Your task to perform on an android device: set the stopwatch Image 0: 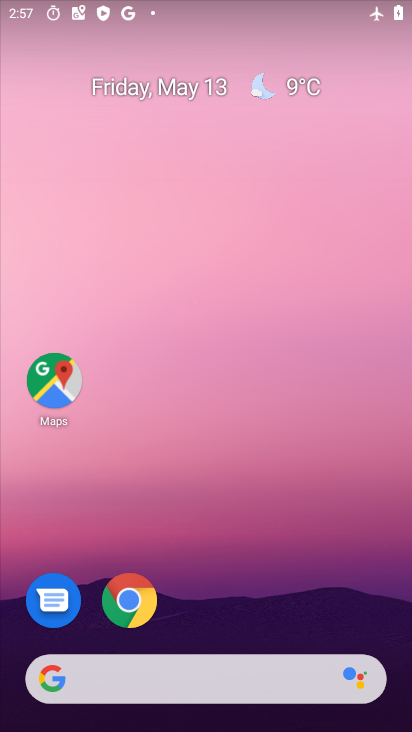
Step 0: drag from (191, 634) to (208, 196)
Your task to perform on an android device: set the stopwatch Image 1: 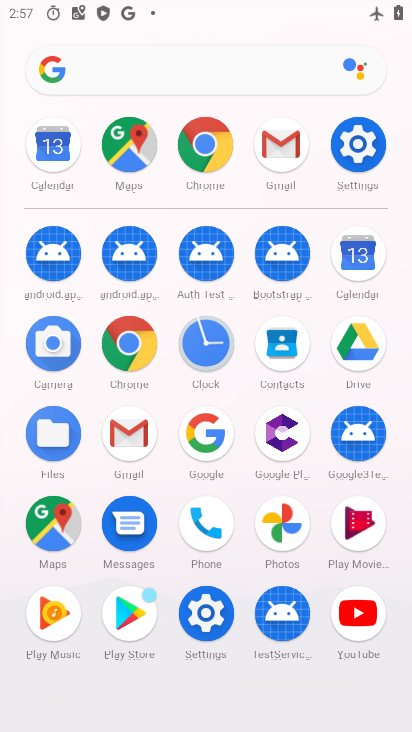
Step 1: click (203, 350)
Your task to perform on an android device: set the stopwatch Image 2: 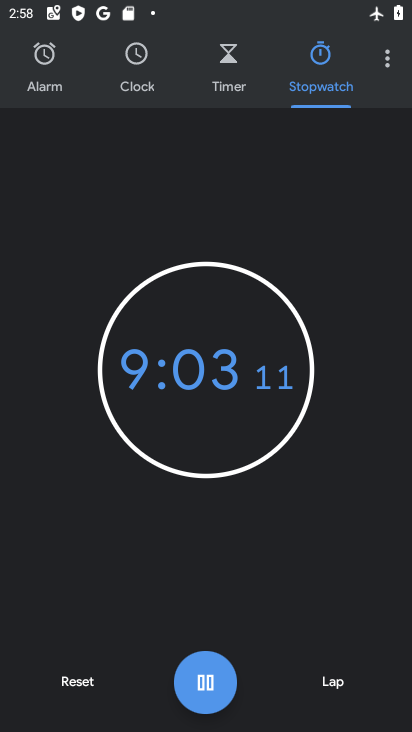
Step 2: task complete